Your task to perform on an android device: What's on my calendar tomorrow? Image 0: 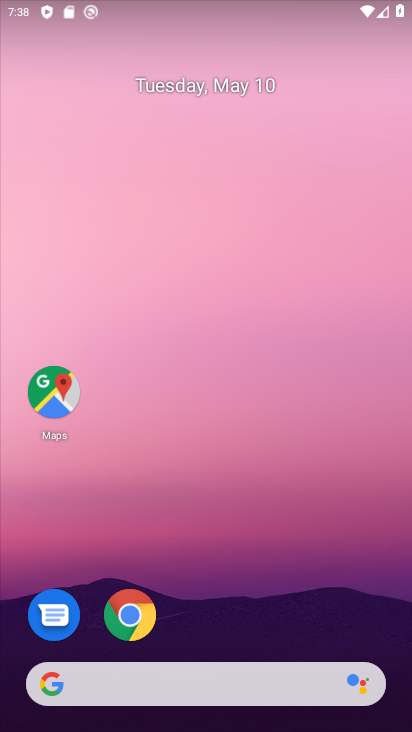
Step 0: click (264, 28)
Your task to perform on an android device: What's on my calendar tomorrow? Image 1: 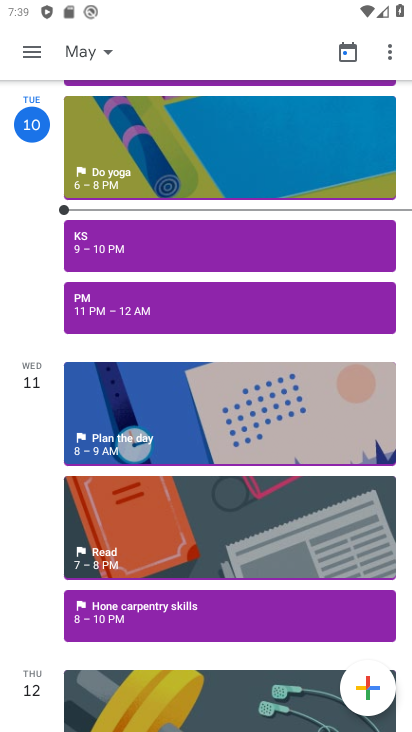
Step 1: click (88, 46)
Your task to perform on an android device: What's on my calendar tomorrow? Image 2: 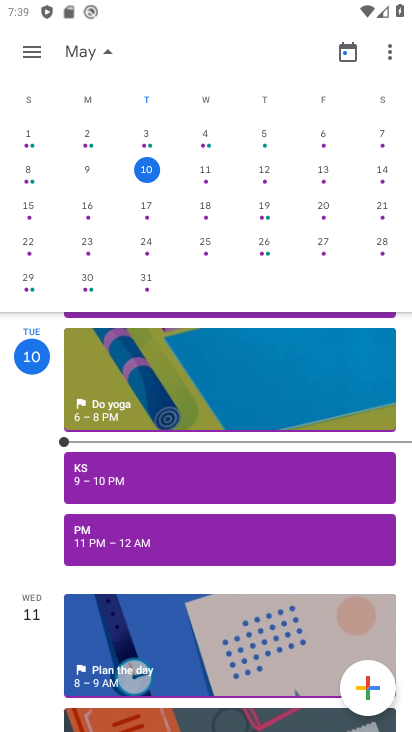
Step 2: click (201, 173)
Your task to perform on an android device: What's on my calendar tomorrow? Image 3: 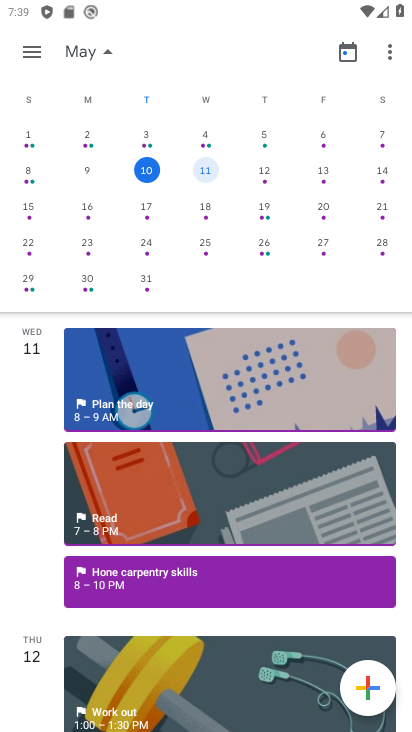
Step 3: task complete